Your task to perform on an android device: allow notifications from all sites in the chrome app Image 0: 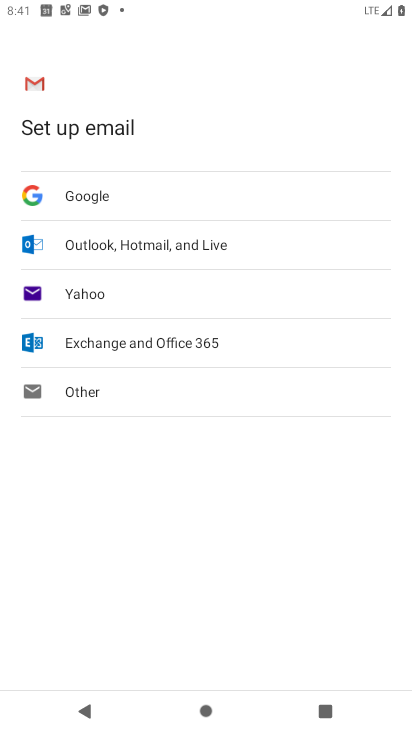
Step 0: press home button
Your task to perform on an android device: allow notifications from all sites in the chrome app Image 1: 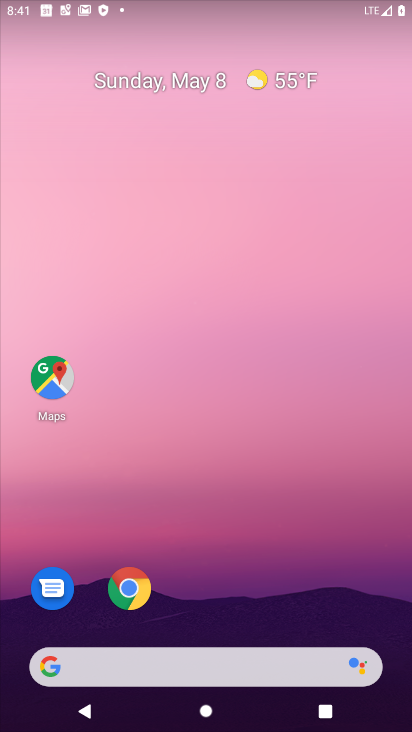
Step 1: drag from (339, 604) to (264, 104)
Your task to perform on an android device: allow notifications from all sites in the chrome app Image 2: 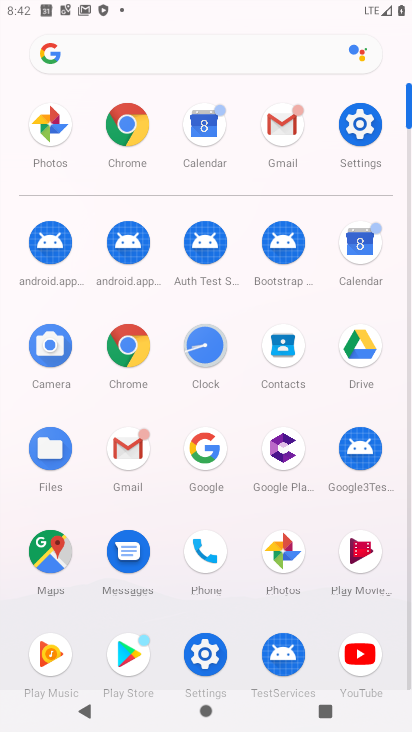
Step 2: click (133, 138)
Your task to perform on an android device: allow notifications from all sites in the chrome app Image 3: 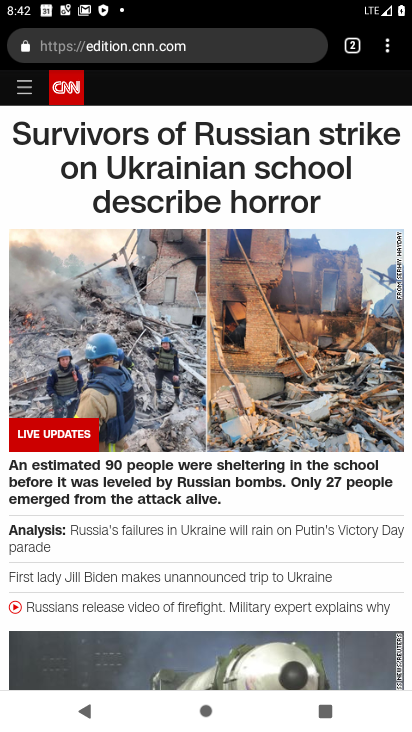
Step 3: press back button
Your task to perform on an android device: allow notifications from all sites in the chrome app Image 4: 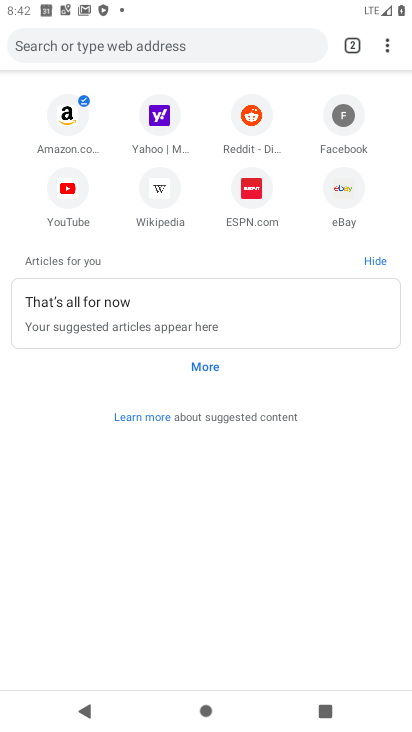
Step 4: click (386, 44)
Your task to perform on an android device: allow notifications from all sites in the chrome app Image 5: 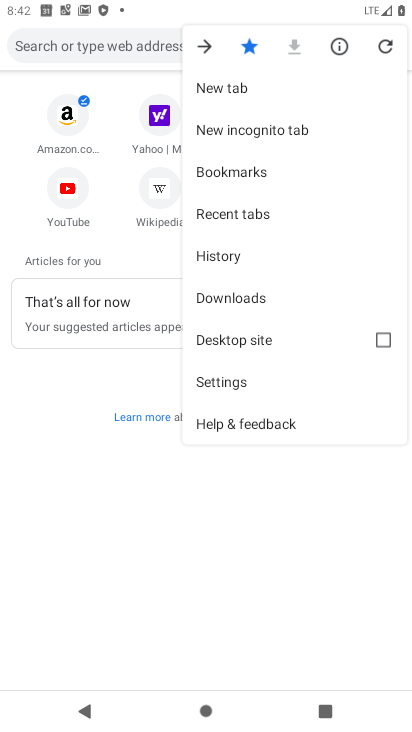
Step 5: click (250, 383)
Your task to perform on an android device: allow notifications from all sites in the chrome app Image 6: 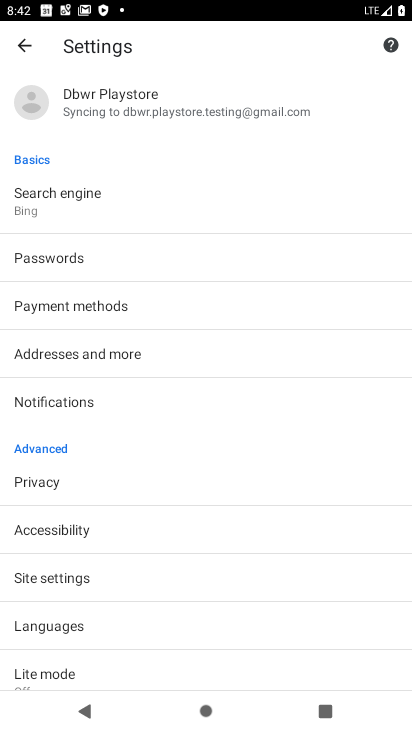
Step 6: click (132, 409)
Your task to perform on an android device: allow notifications from all sites in the chrome app Image 7: 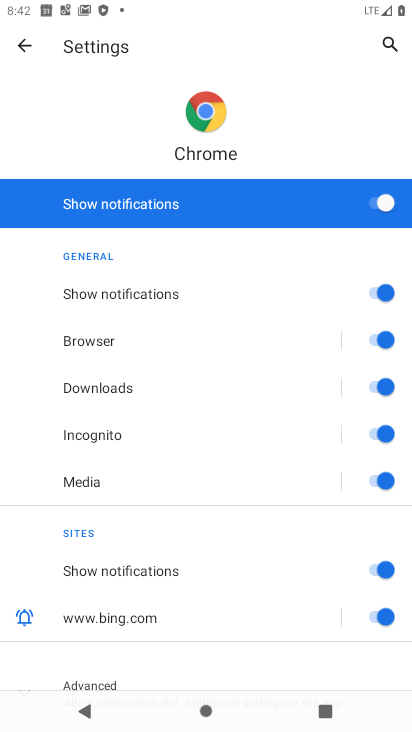
Step 7: task complete